Your task to perform on an android device: turn smart compose on in the gmail app Image 0: 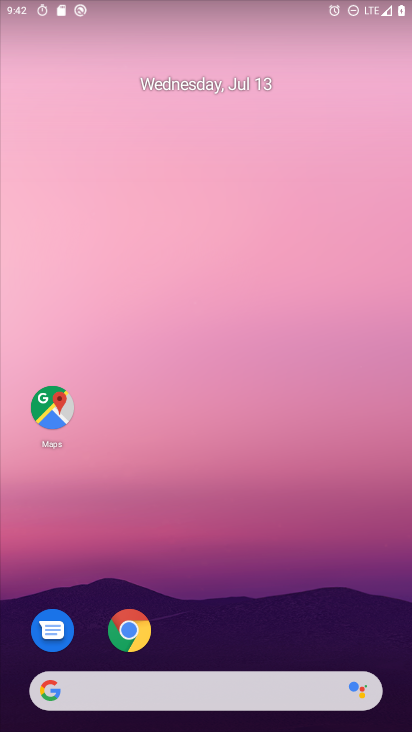
Step 0: drag from (391, 677) to (262, 50)
Your task to perform on an android device: turn smart compose on in the gmail app Image 1: 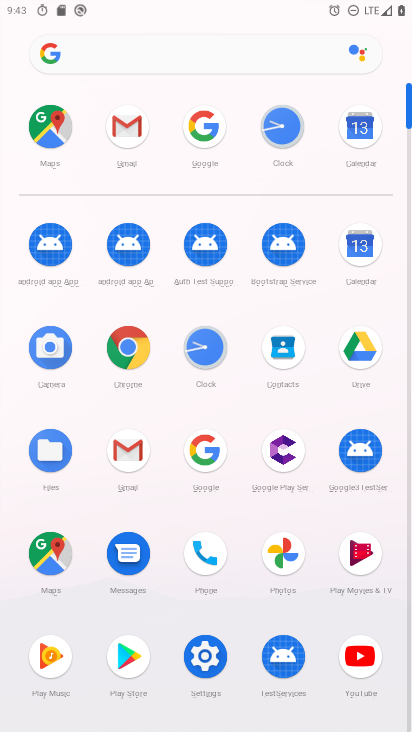
Step 1: click (141, 451)
Your task to perform on an android device: turn smart compose on in the gmail app Image 2: 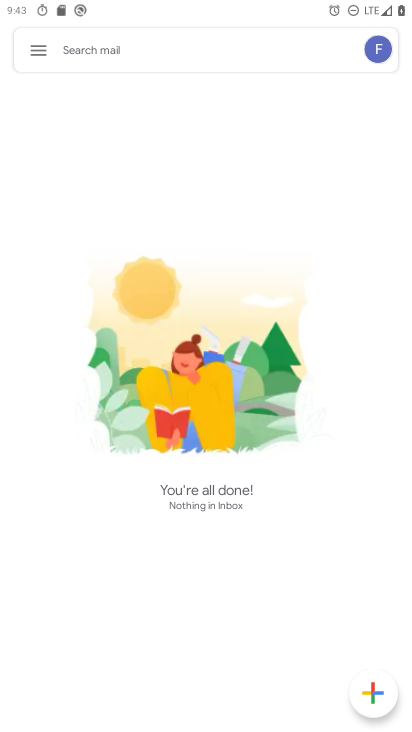
Step 2: click (33, 55)
Your task to perform on an android device: turn smart compose on in the gmail app Image 3: 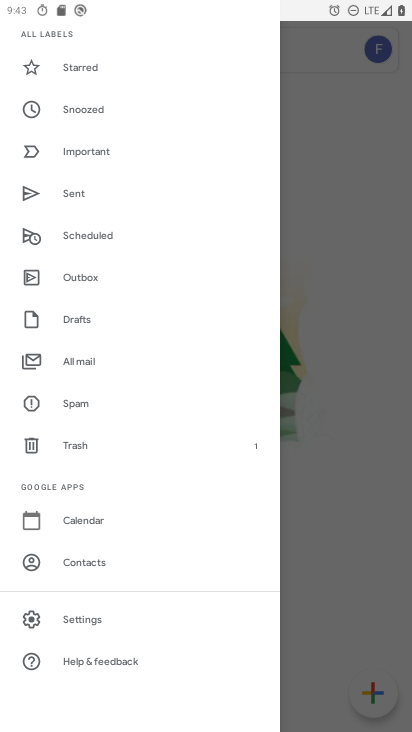
Step 3: click (95, 619)
Your task to perform on an android device: turn smart compose on in the gmail app Image 4: 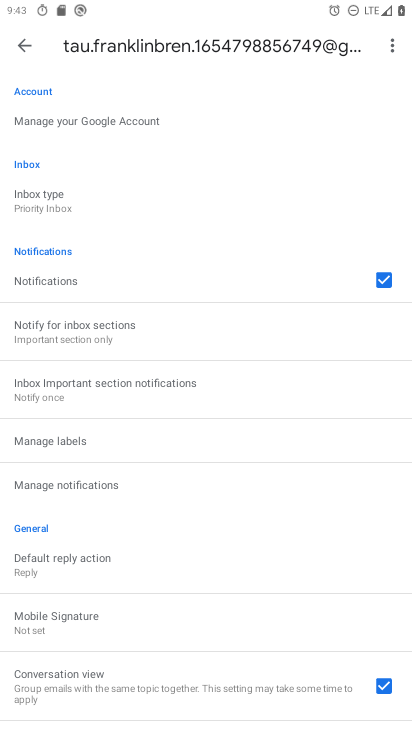
Step 4: task complete